Your task to perform on an android device: Go to location settings Image 0: 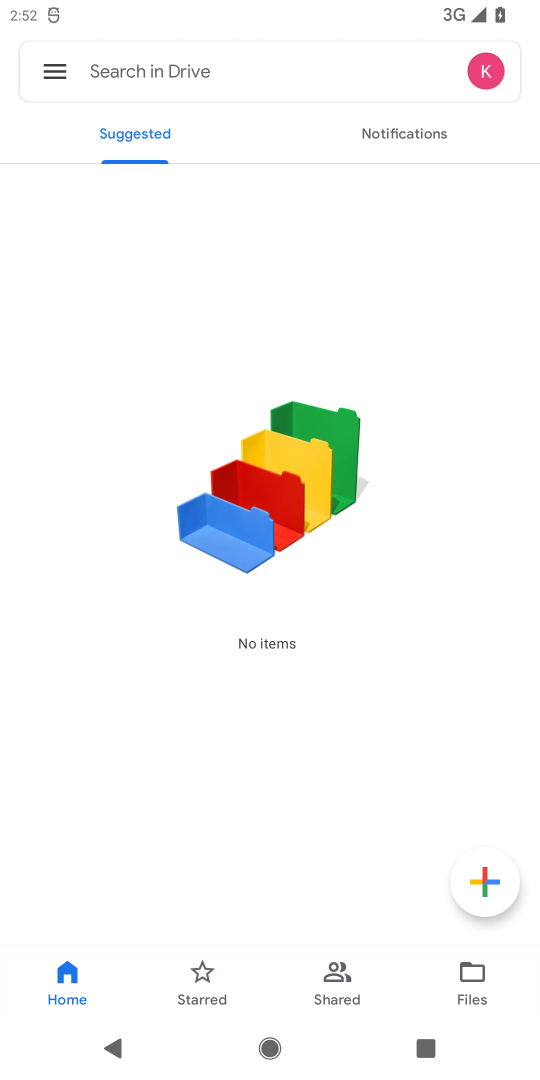
Step 0: press home button
Your task to perform on an android device: Go to location settings Image 1: 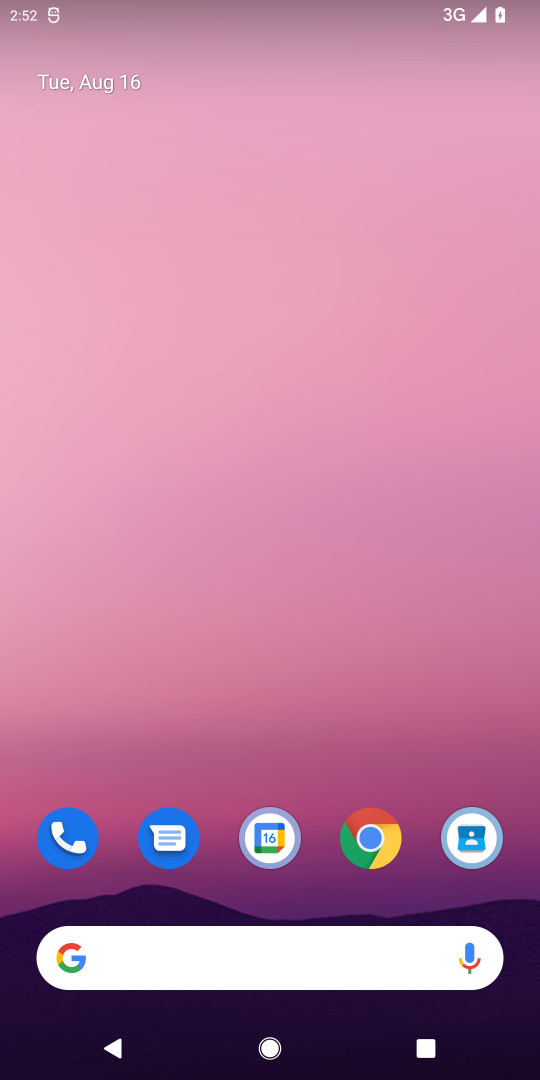
Step 1: drag from (335, 699) to (250, 96)
Your task to perform on an android device: Go to location settings Image 2: 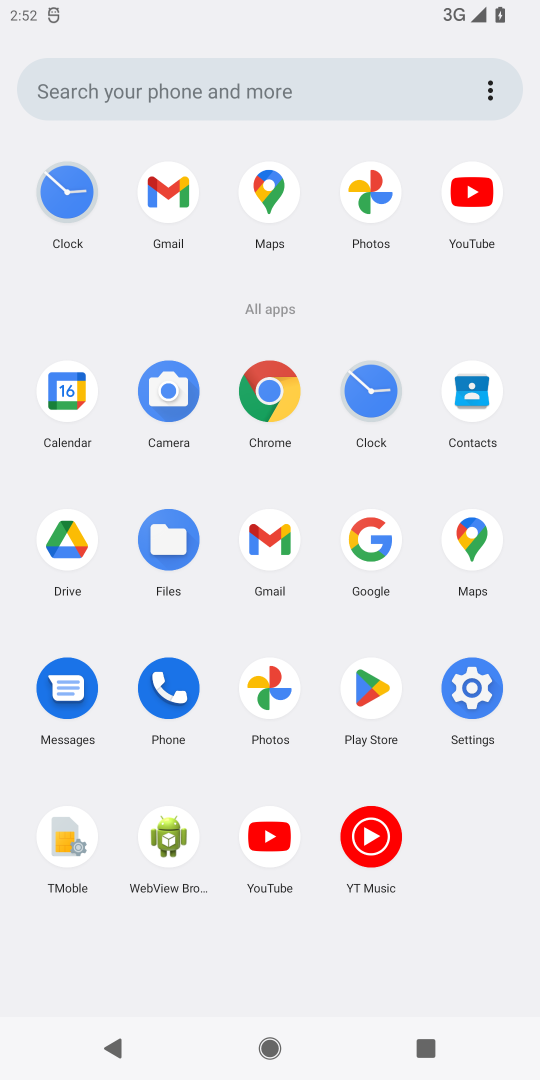
Step 2: click (468, 684)
Your task to perform on an android device: Go to location settings Image 3: 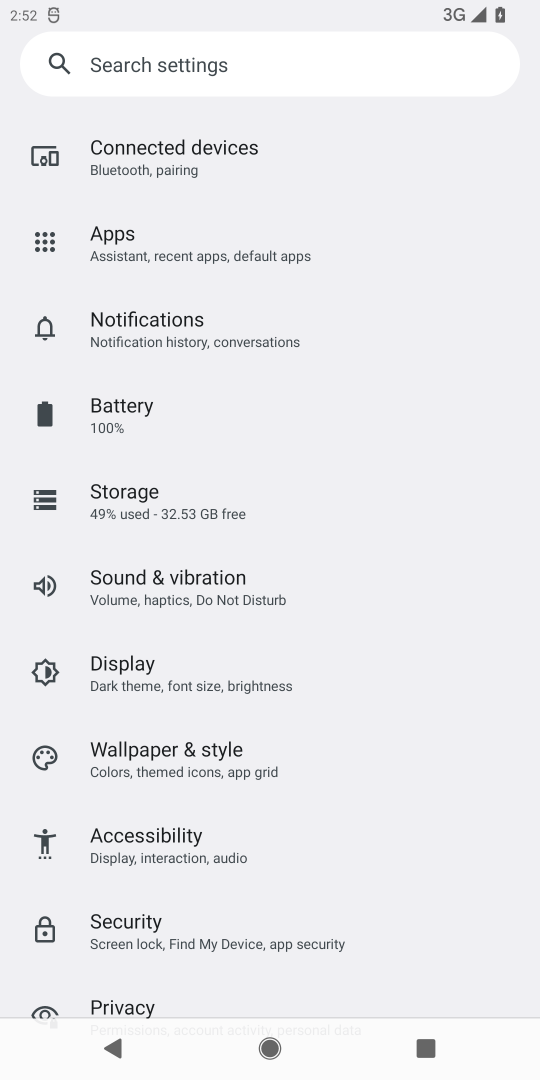
Step 3: drag from (137, 812) to (168, 378)
Your task to perform on an android device: Go to location settings Image 4: 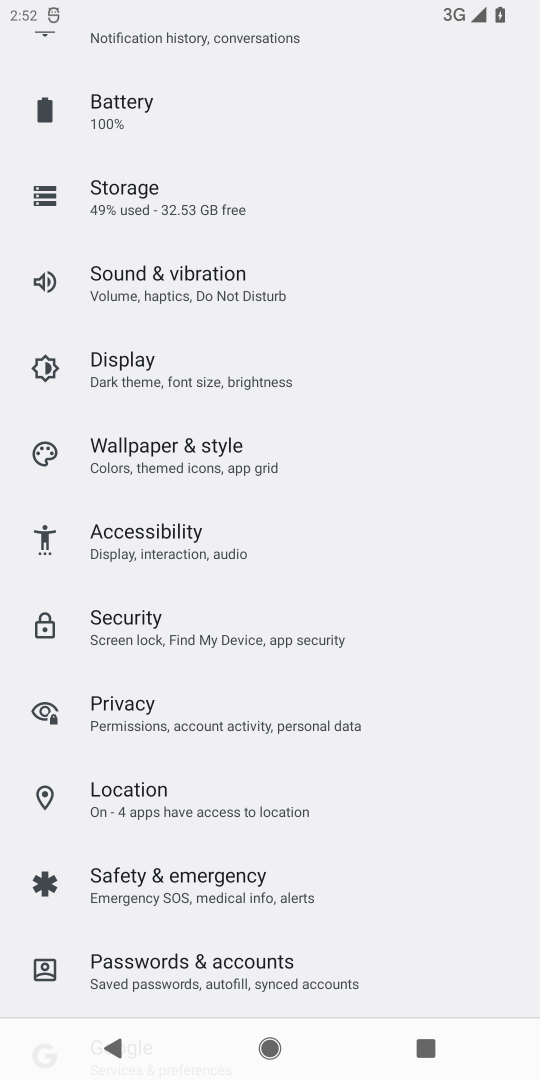
Step 4: click (131, 787)
Your task to perform on an android device: Go to location settings Image 5: 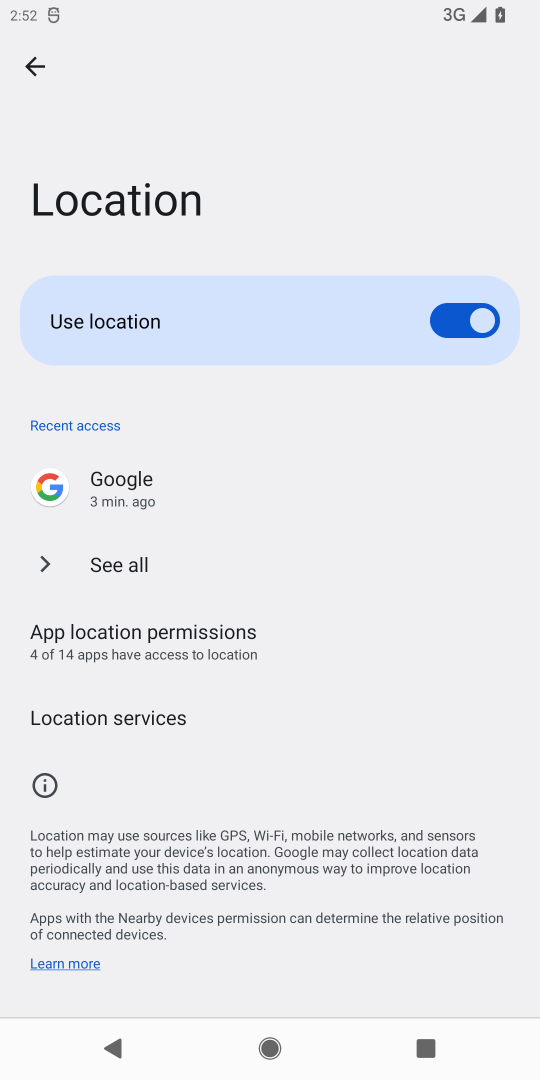
Step 5: task complete